Your task to perform on an android device: open app "Google Translate" (install if not already installed) Image 0: 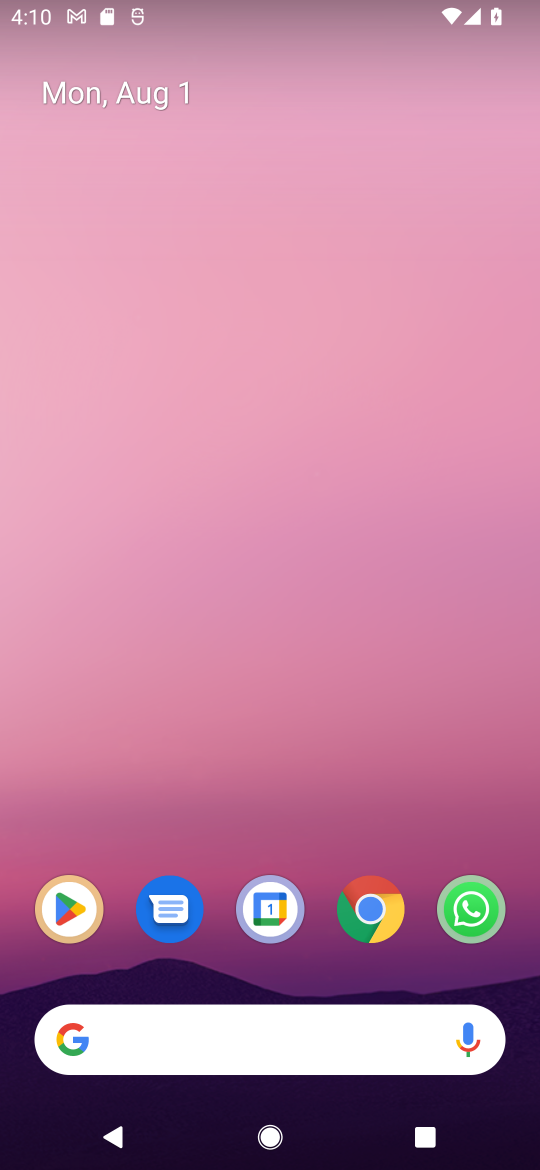
Step 0: click (72, 908)
Your task to perform on an android device: open app "Google Translate" (install if not already installed) Image 1: 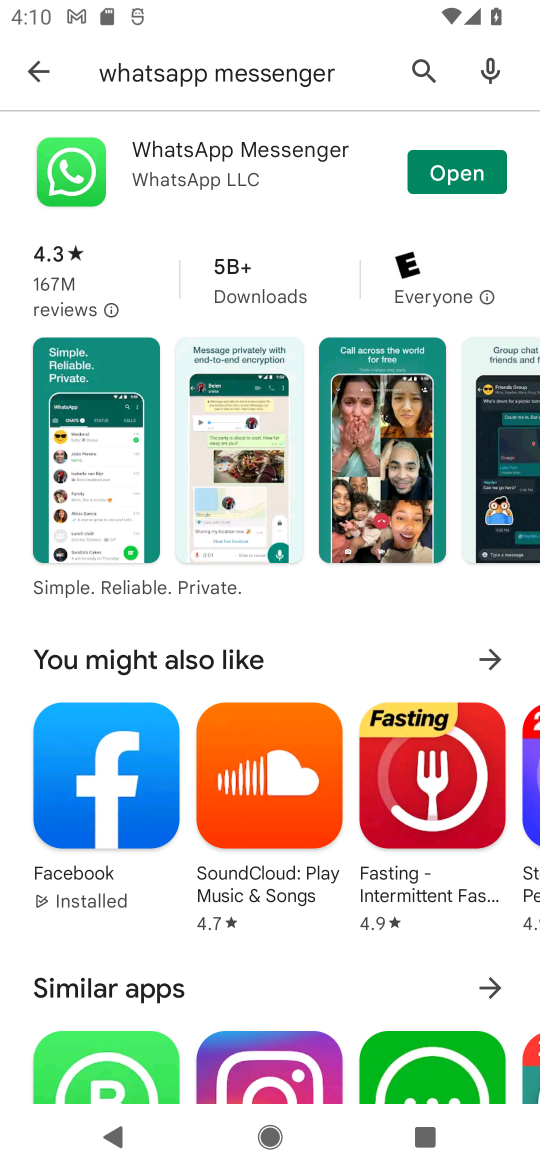
Step 1: click (215, 88)
Your task to perform on an android device: open app "Google Translate" (install if not already installed) Image 2: 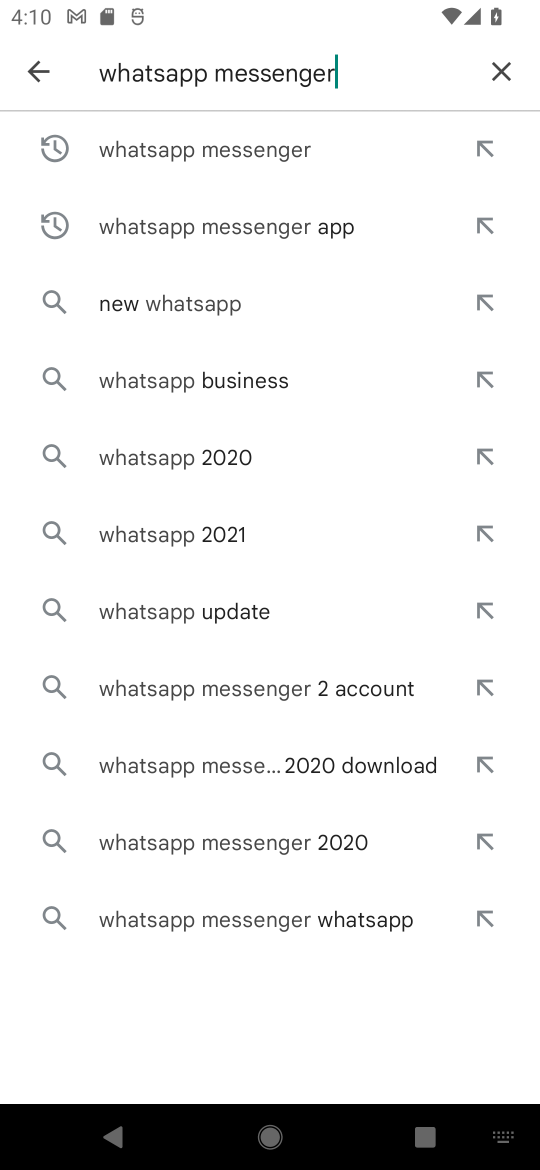
Step 2: click (504, 56)
Your task to perform on an android device: open app "Google Translate" (install if not already installed) Image 3: 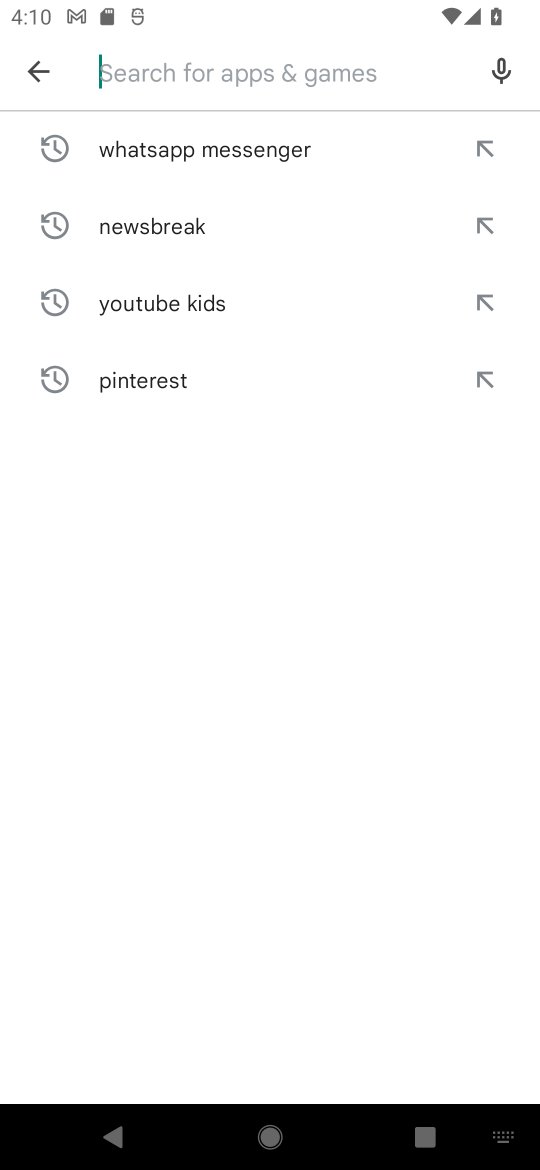
Step 3: type "google translate"
Your task to perform on an android device: open app "Google Translate" (install if not already installed) Image 4: 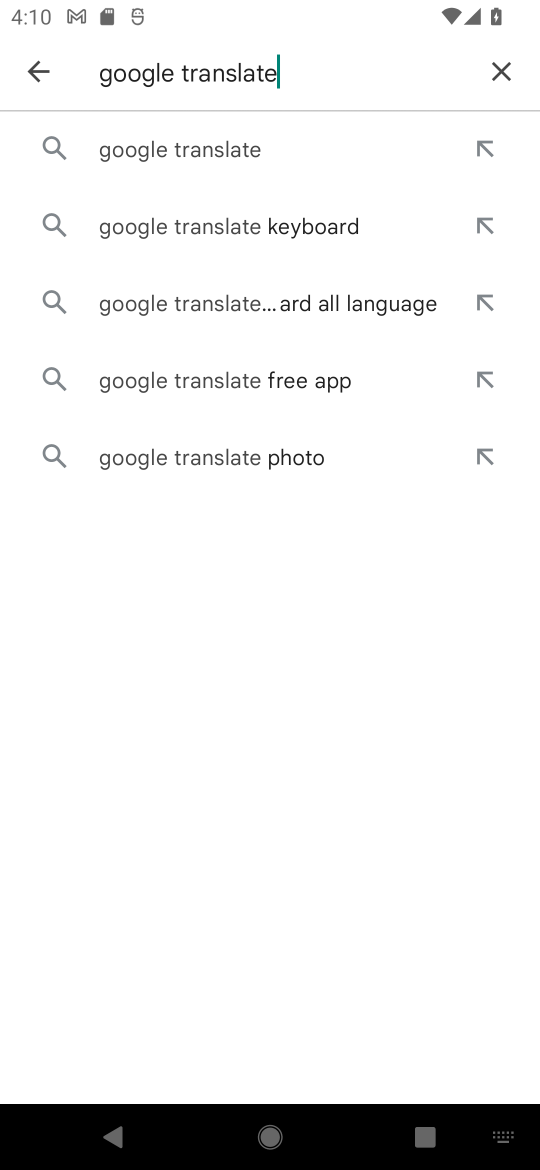
Step 4: click (276, 170)
Your task to perform on an android device: open app "Google Translate" (install if not already installed) Image 5: 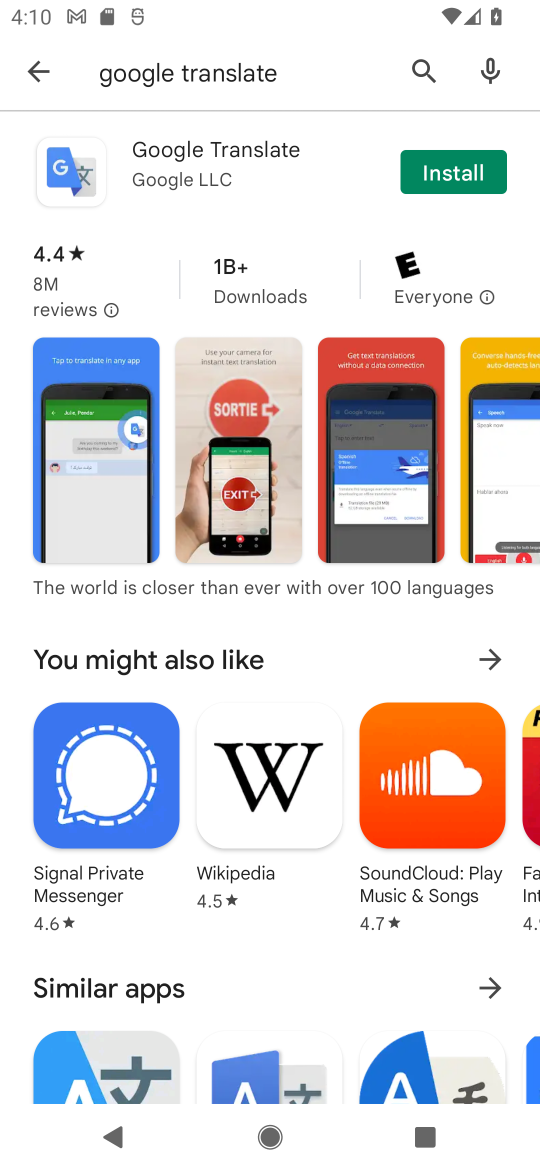
Step 5: click (443, 168)
Your task to perform on an android device: open app "Google Translate" (install if not already installed) Image 6: 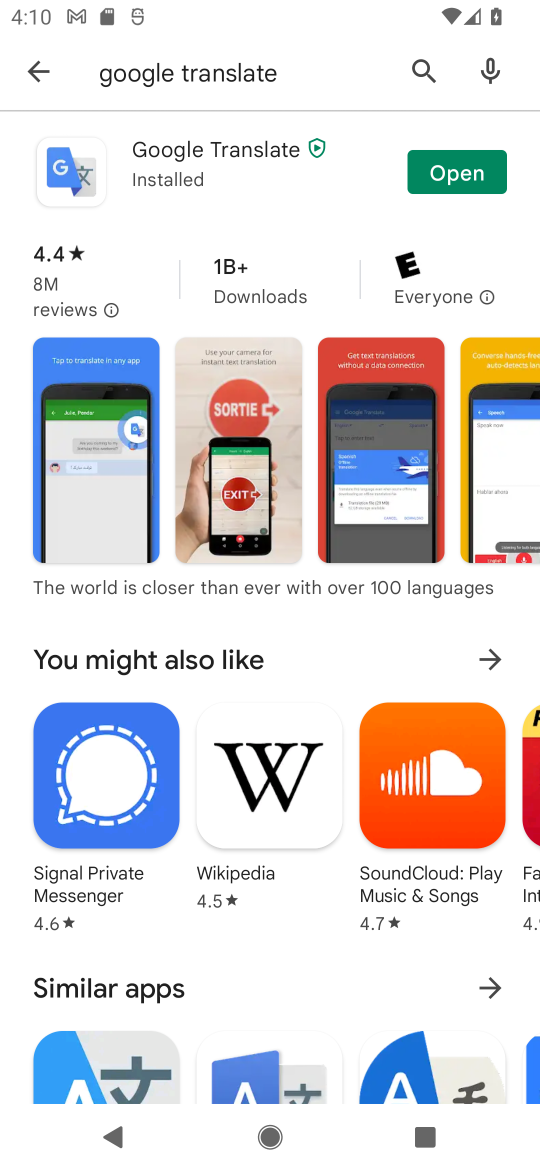
Step 6: click (443, 188)
Your task to perform on an android device: open app "Google Translate" (install if not already installed) Image 7: 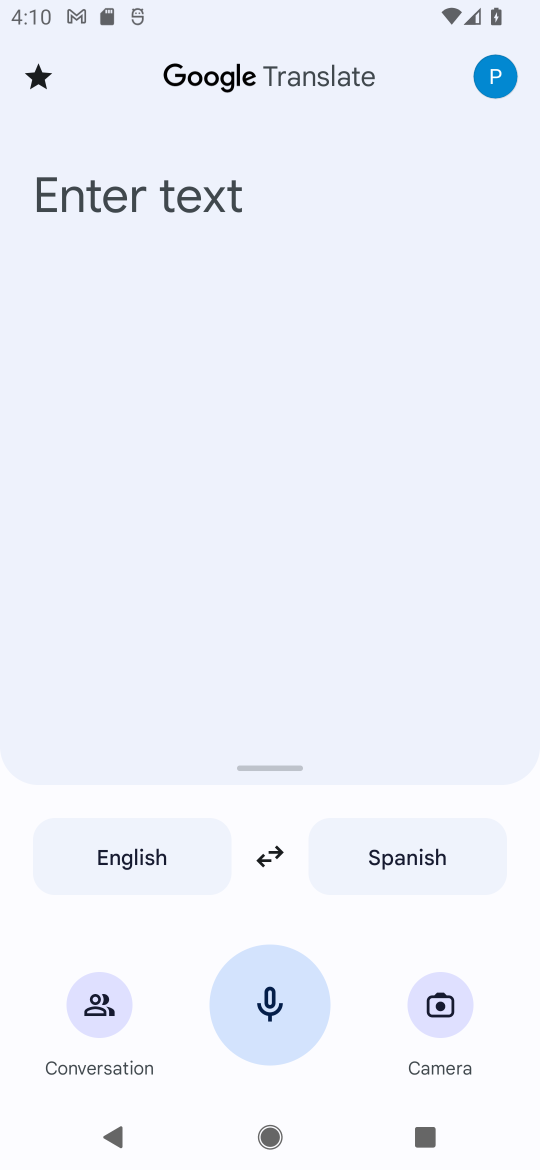
Step 7: task complete